Your task to perform on an android device: Go to notification settings Image 0: 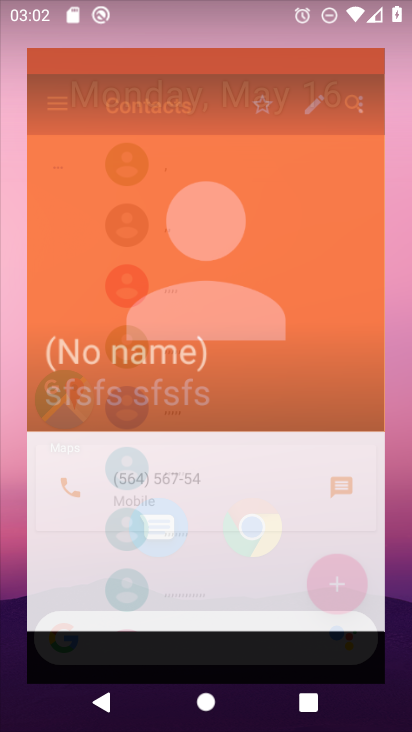
Step 0: drag from (342, 553) to (311, 172)
Your task to perform on an android device: Go to notification settings Image 1: 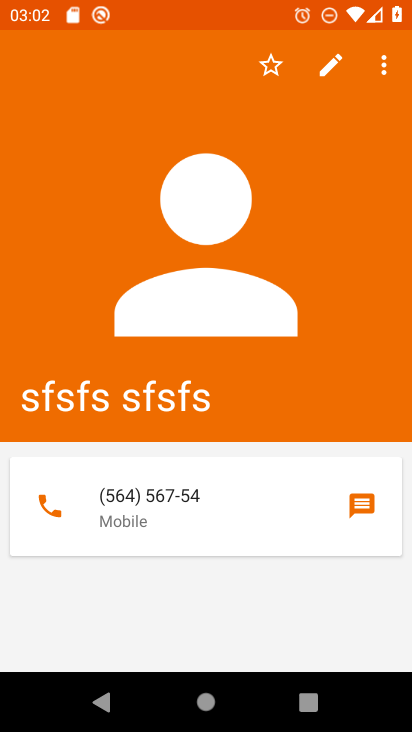
Step 1: press home button
Your task to perform on an android device: Go to notification settings Image 2: 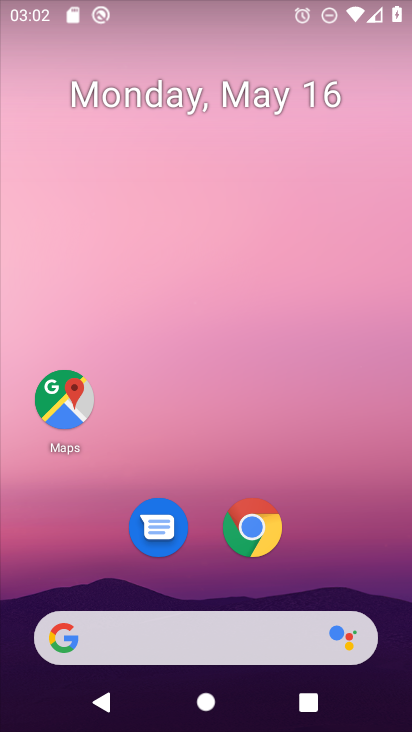
Step 2: drag from (329, 554) to (288, 59)
Your task to perform on an android device: Go to notification settings Image 3: 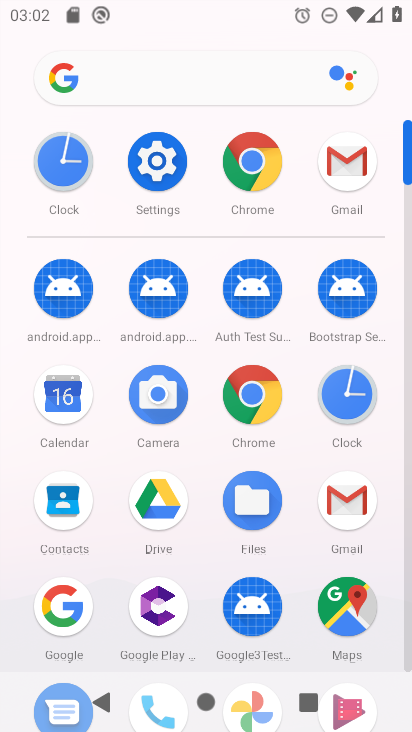
Step 3: click (165, 166)
Your task to perform on an android device: Go to notification settings Image 4: 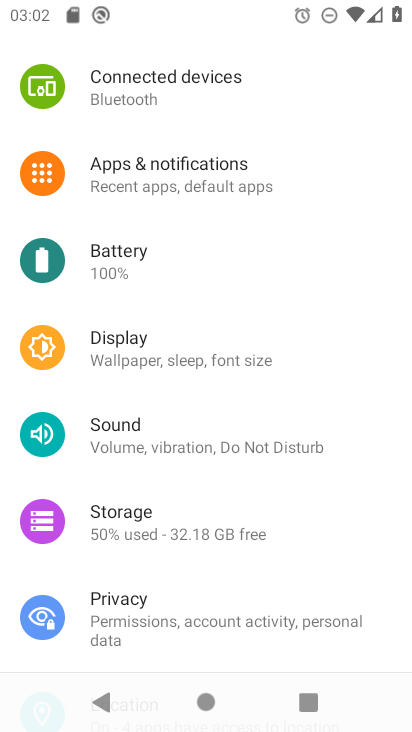
Step 4: click (165, 166)
Your task to perform on an android device: Go to notification settings Image 5: 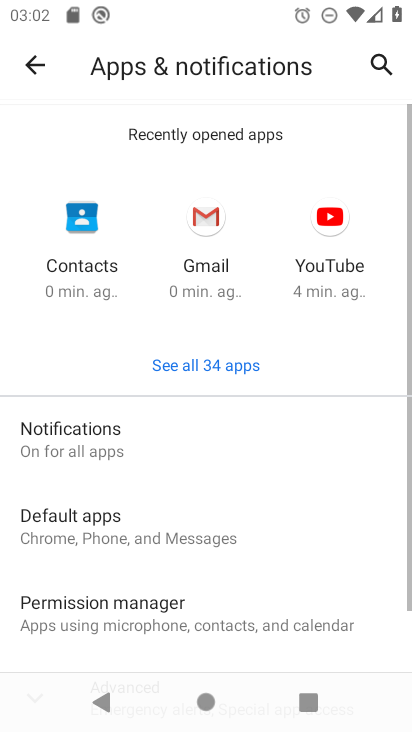
Step 5: task complete